Your task to perform on an android device: move a message to another label in the gmail app Image 0: 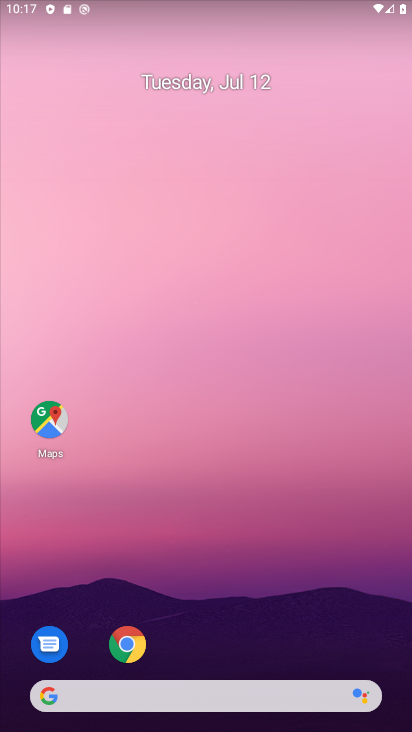
Step 0: drag from (177, 665) to (147, 180)
Your task to perform on an android device: move a message to another label in the gmail app Image 1: 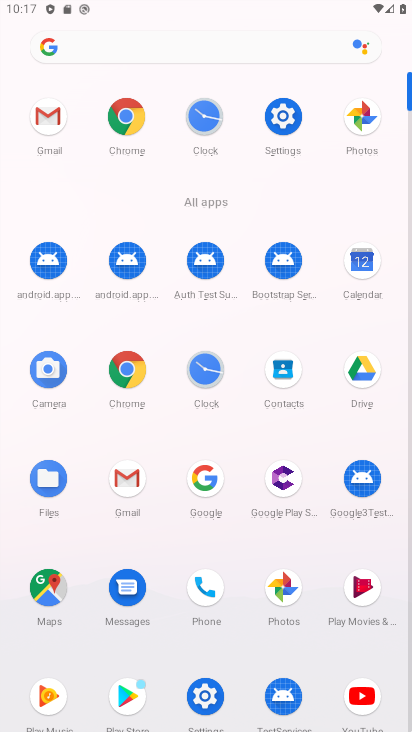
Step 1: click (122, 479)
Your task to perform on an android device: move a message to another label in the gmail app Image 2: 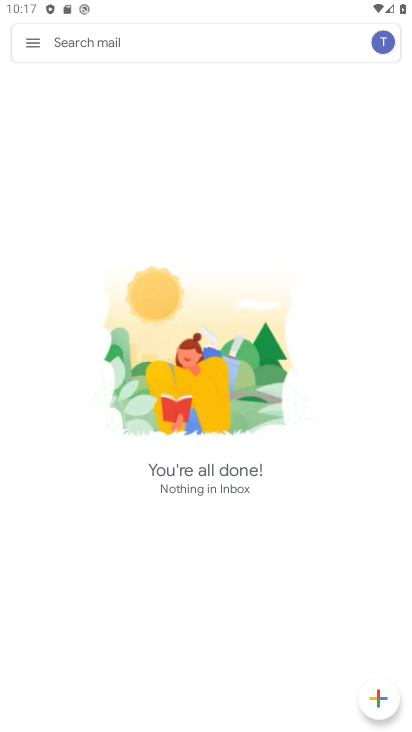
Step 2: task complete